Your task to perform on an android device: Show me recent news Image 0: 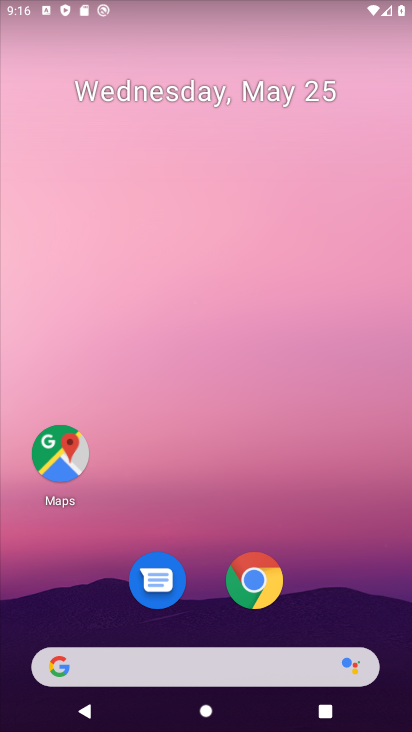
Step 0: press home button
Your task to perform on an android device: Show me recent news Image 1: 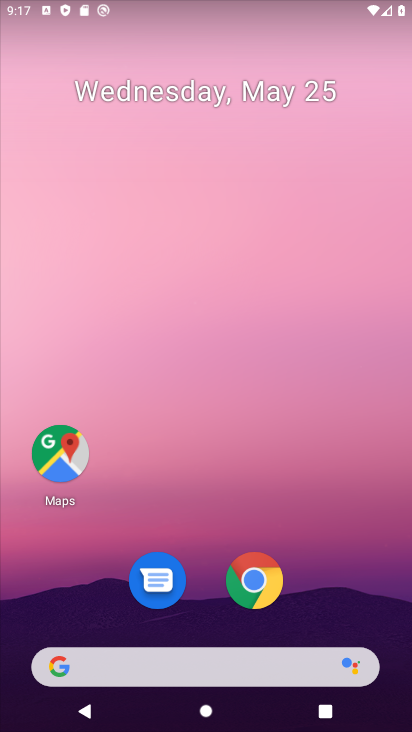
Step 1: click (223, 667)
Your task to perform on an android device: Show me recent news Image 2: 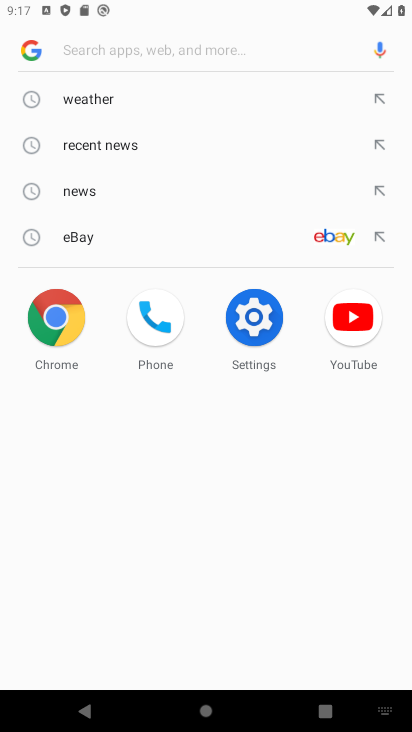
Step 2: click (80, 193)
Your task to perform on an android device: Show me recent news Image 3: 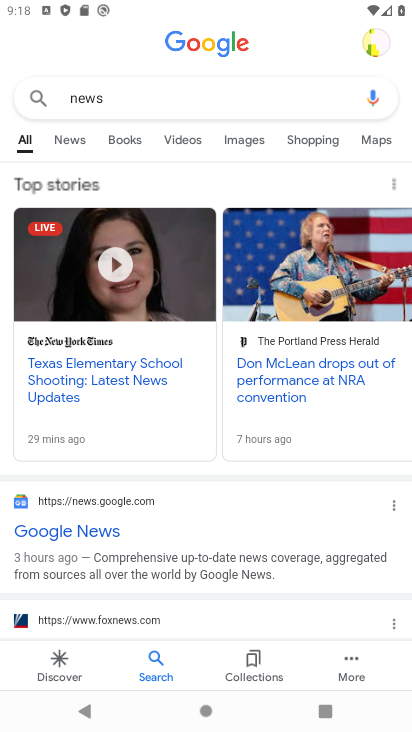
Step 3: task complete